Your task to perform on an android device: Open the web browser Image 0: 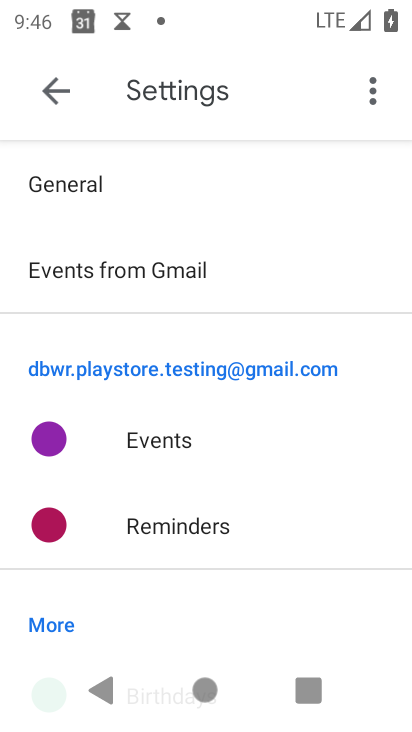
Step 0: press home button
Your task to perform on an android device: Open the web browser Image 1: 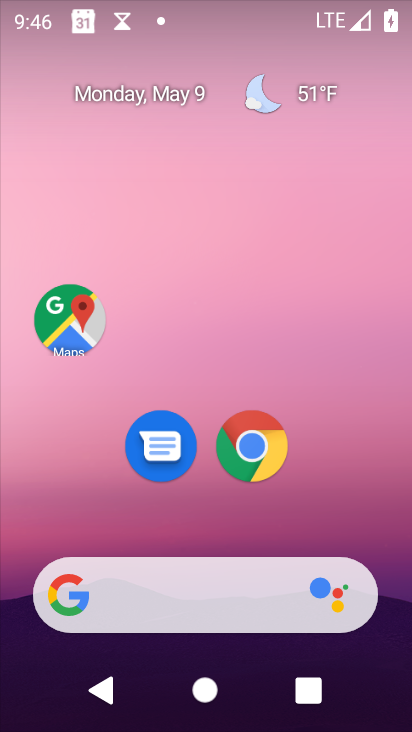
Step 1: click (256, 432)
Your task to perform on an android device: Open the web browser Image 2: 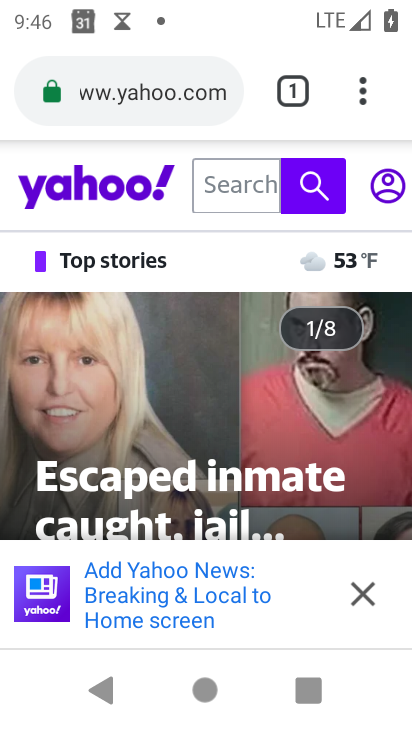
Step 2: task complete